Your task to perform on an android device: Search for "logitech g910" on ebay, select the first entry, and add it to the cart. Image 0: 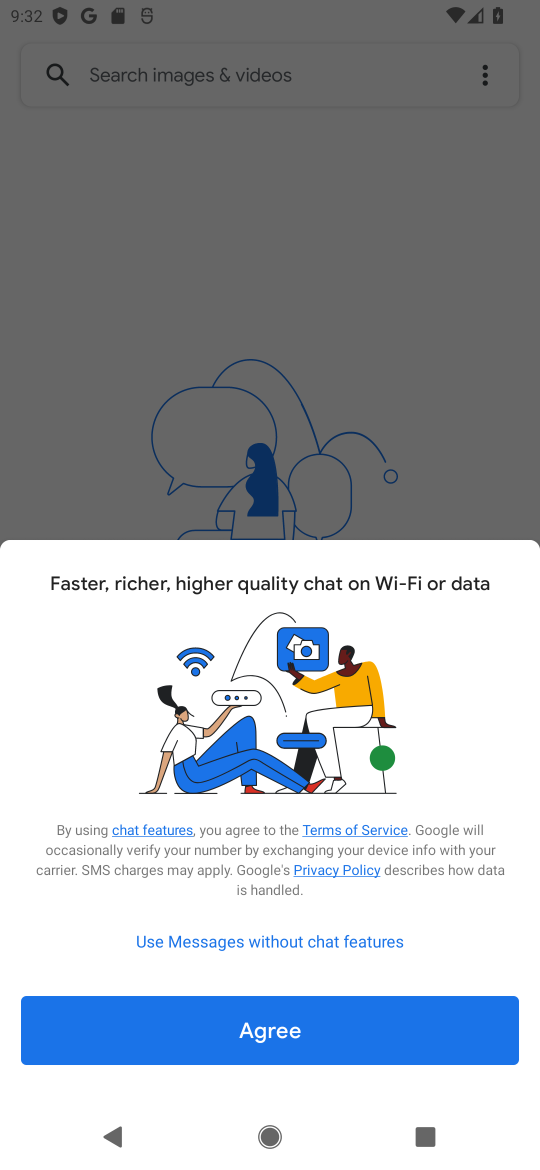
Step 0: press home button
Your task to perform on an android device: Search for "logitech g910" on ebay, select the first entry, and add it to the cart. Image 1: 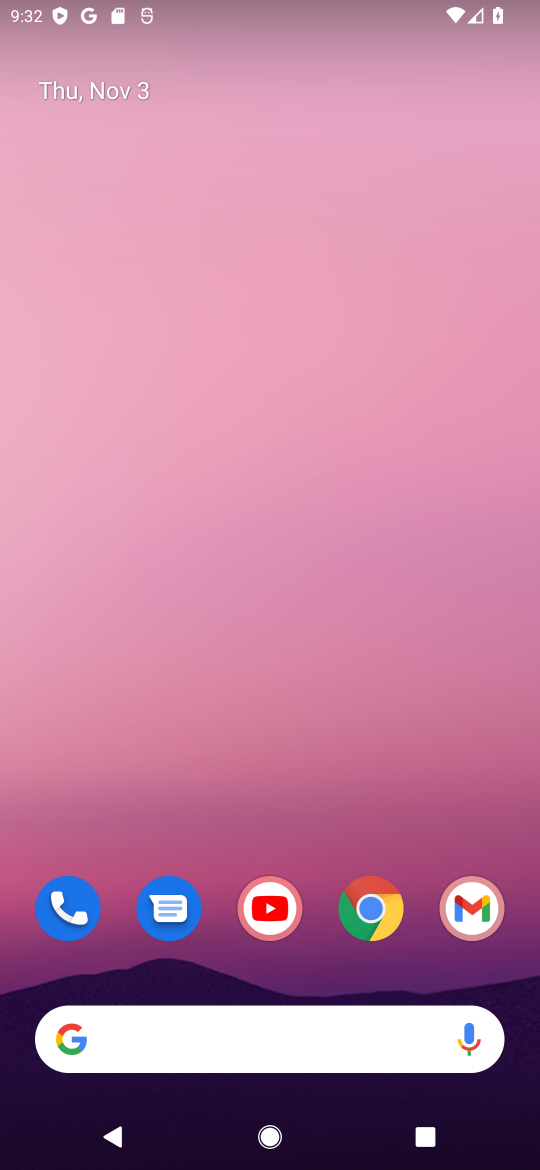
Step 1: click (385, 916)
Your task to perform on an android device: Search for "logitech g910" on ebay, select the first entry, and add it to the cart. Image 2: 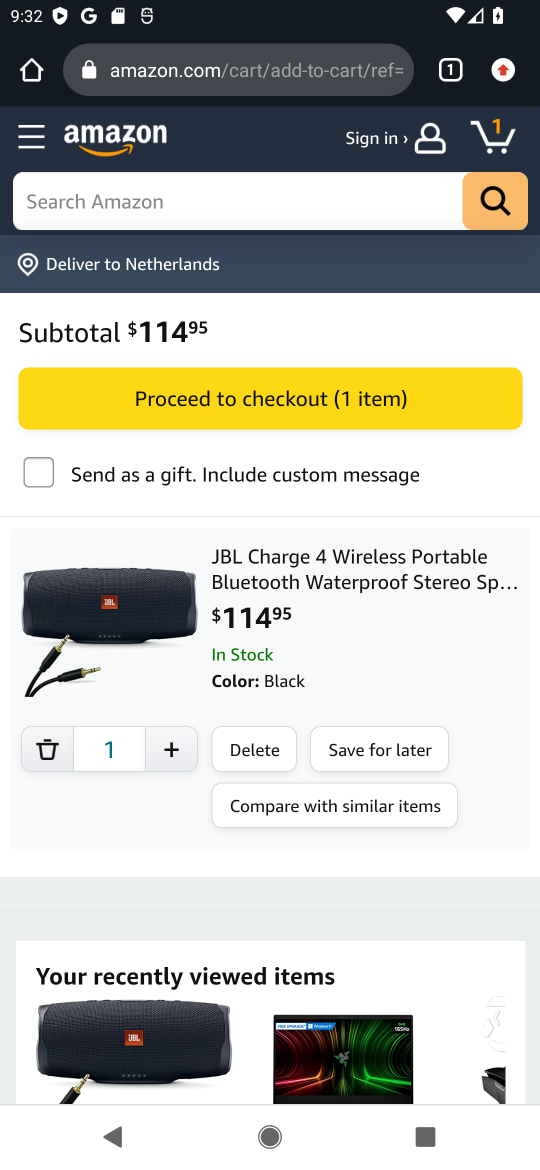
Step 2: click (231, 66)
Your task to perform on an android device: Search for "logitech g910" on ebay, select the first entry, and add it to the cart. Image 3: 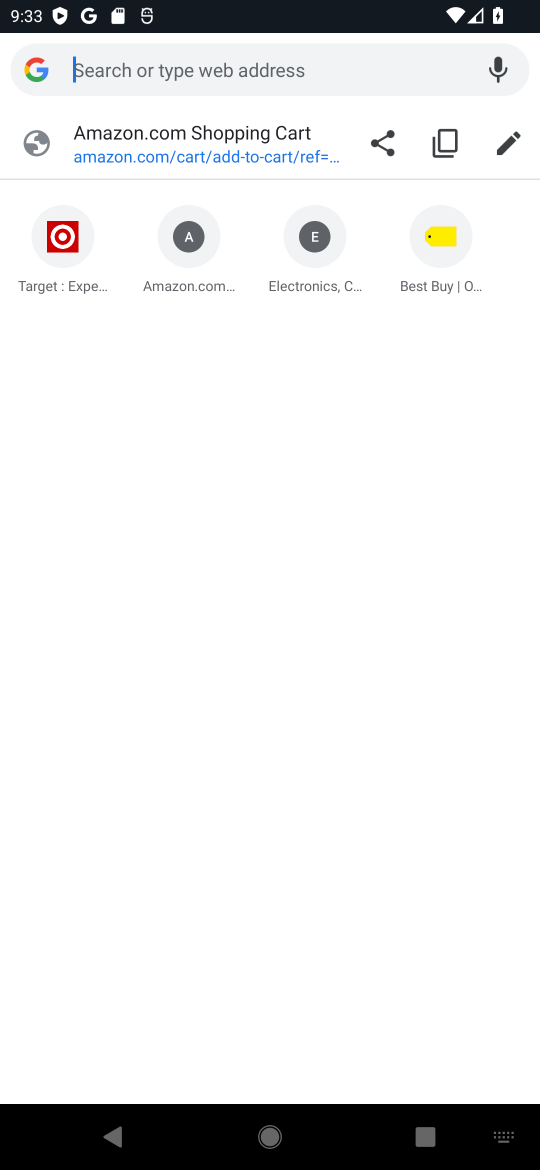
Step 3: type "ebay"
Your task to perform on an android device: Search for "logitech g910" on ebay, select the first entry, and add it to the cart. Image 4: 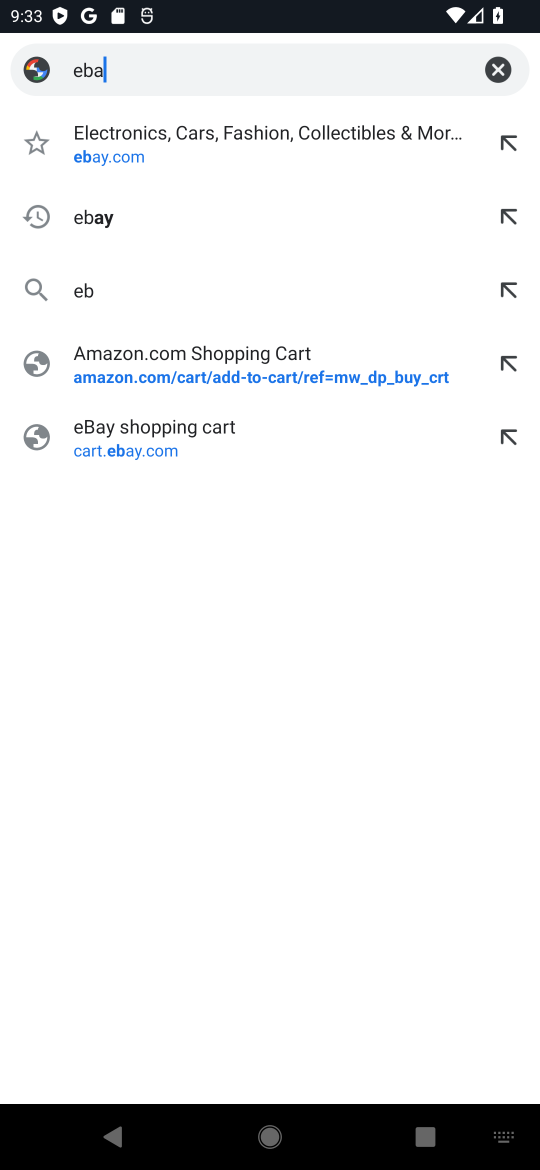
Step 4: press enter
Your task to perform on an android device: Search for "logitech g910" on ebay, select the first entry, and add it to the cart. Image 5: 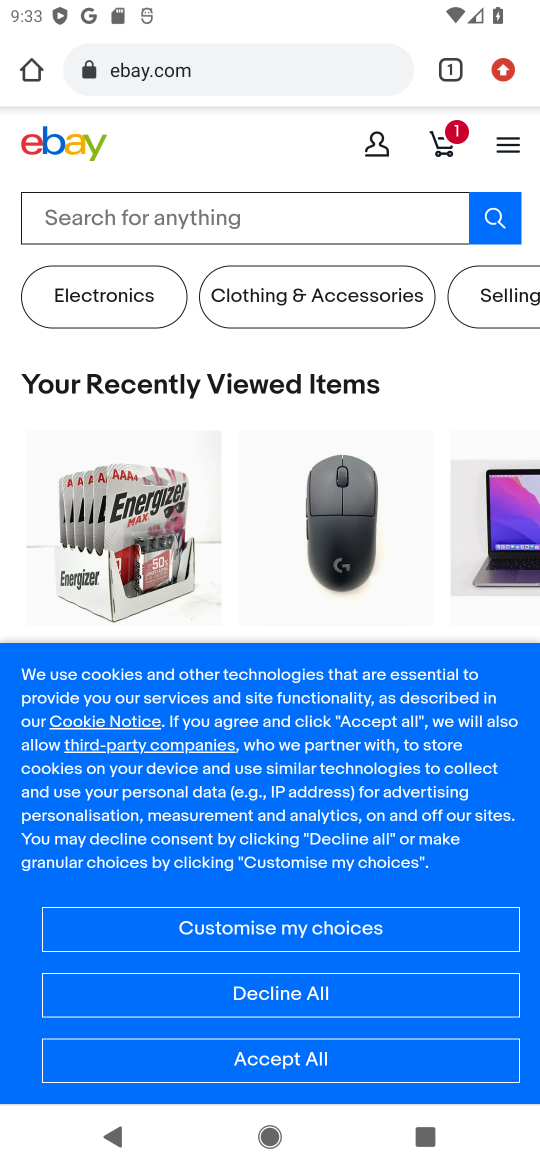
Step 5: click (192, 218)
Your task to perform on an android device: Search for "logitech g910" on ebay, select the first entry, and add it to the cart. Image 6: 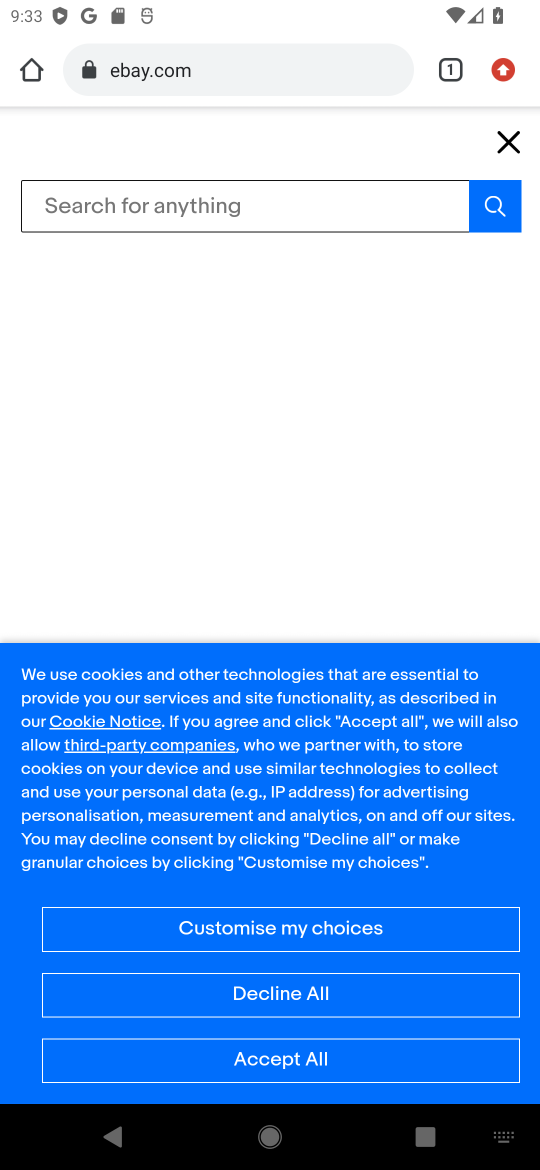
Step 6: press enter
Your task to perform on an android device: Search for "logitech g910" on ebay, select the first entry, and add it to the cart. Image 7: 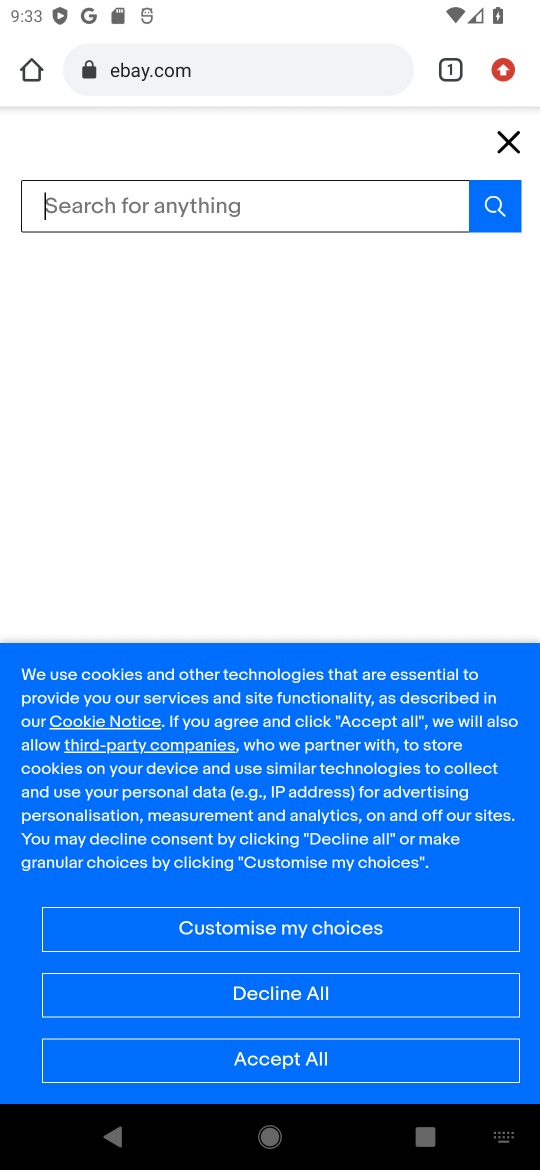
Step 7: type "logitech g910"
Your task to perform on an android device: Search for "logitech g910" on ebay, select the first entry, and add it to the cart. Image 8: 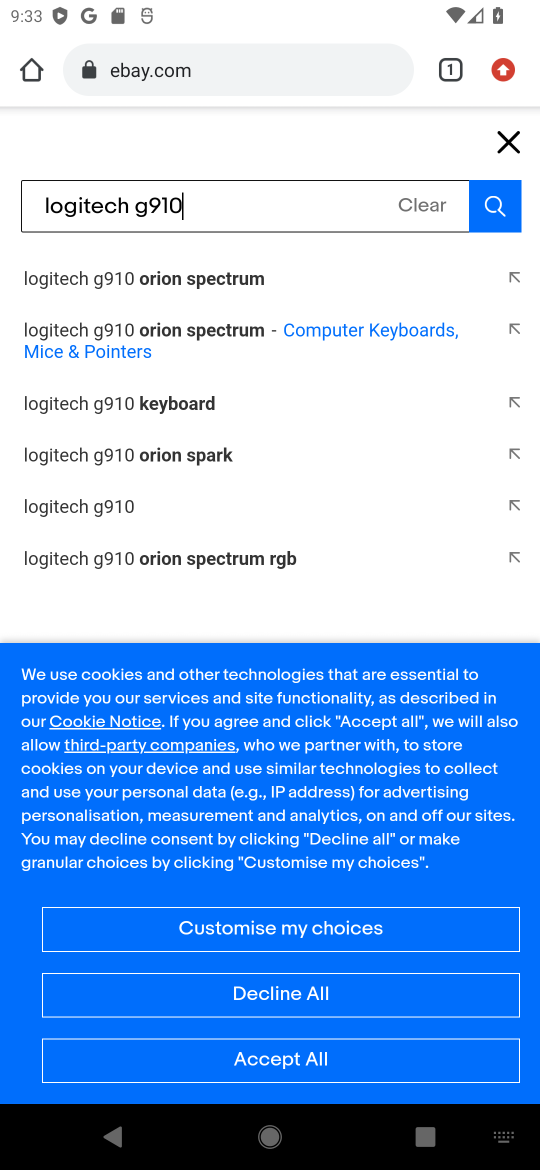
Step 8: click (118, 507)
Your task to perform on an android device: Search for "logitech g910" on ebay, select the first entry, and add it to the cart. Image 9: 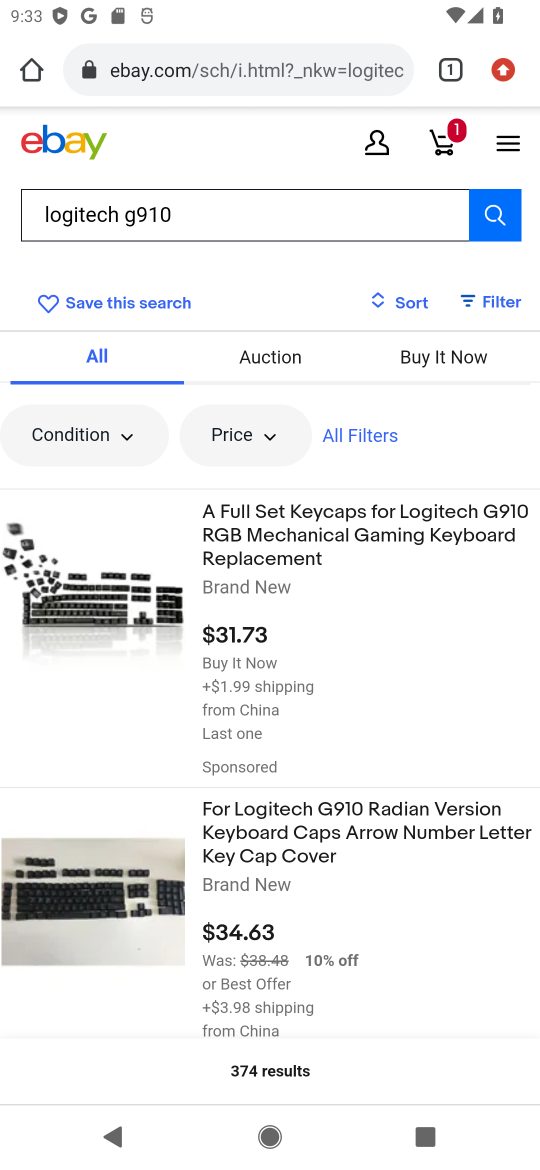
Step 9: click (364, 827)
Your task to perform on an android device: Search for "logitech g910" on ebay, select the first entry, and add it to the cart. Image 10: 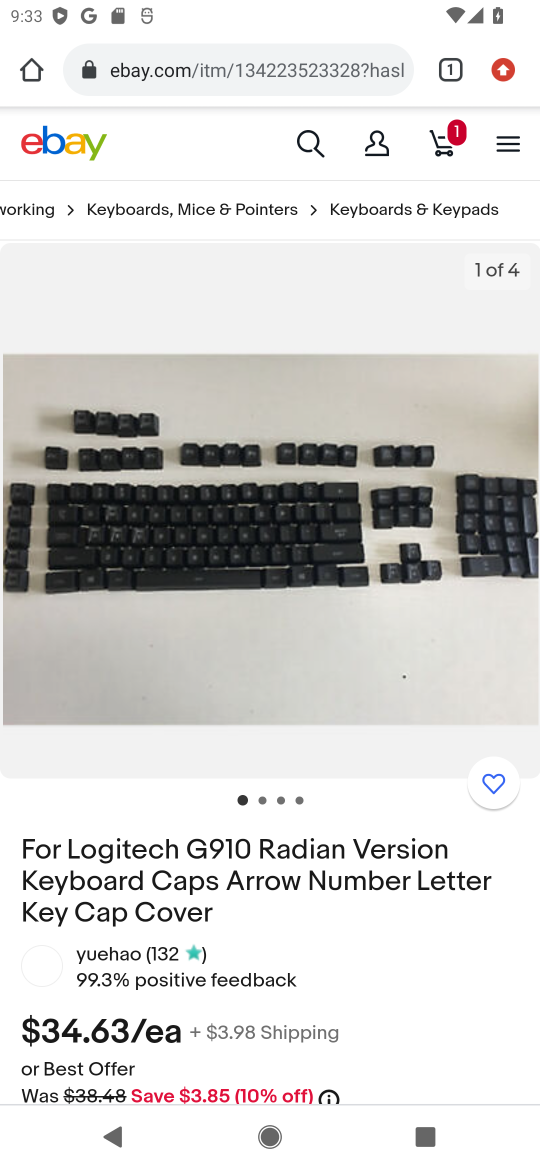
Step 10: press back button
Your task to perform on an android device: Search for "logitech g910" on ebay, select the first entry, and add it to the cart. Image 11: 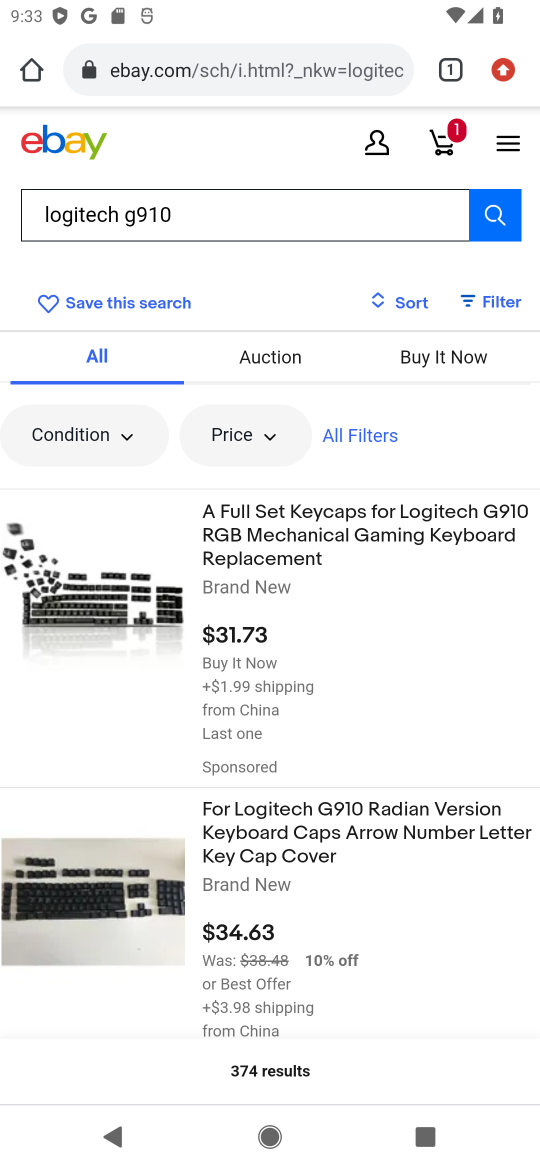
Step 11: drag from (382, 853) to (419, 291)
Your task to perform on an android device: Search for "logitech g910" on ebay, select the first entry, and add it to the cart. Image 12: 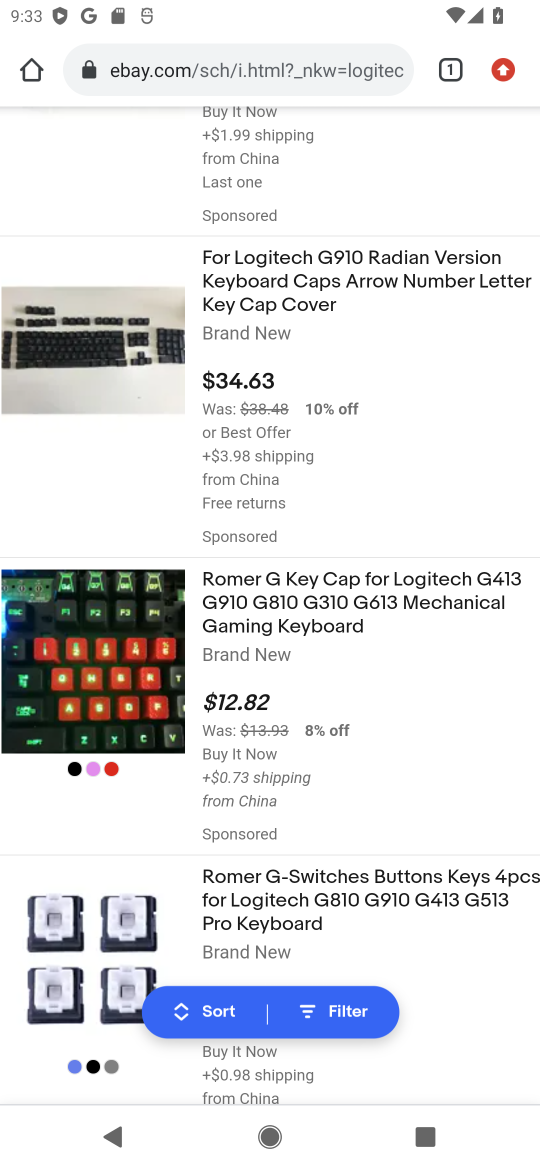
Step 12: drag from (412, 752) to (432, 391)
Your task to perform on an android device: Search for "logitech g910" on ebay, select the first entry, and add it to the cart. Image 13: 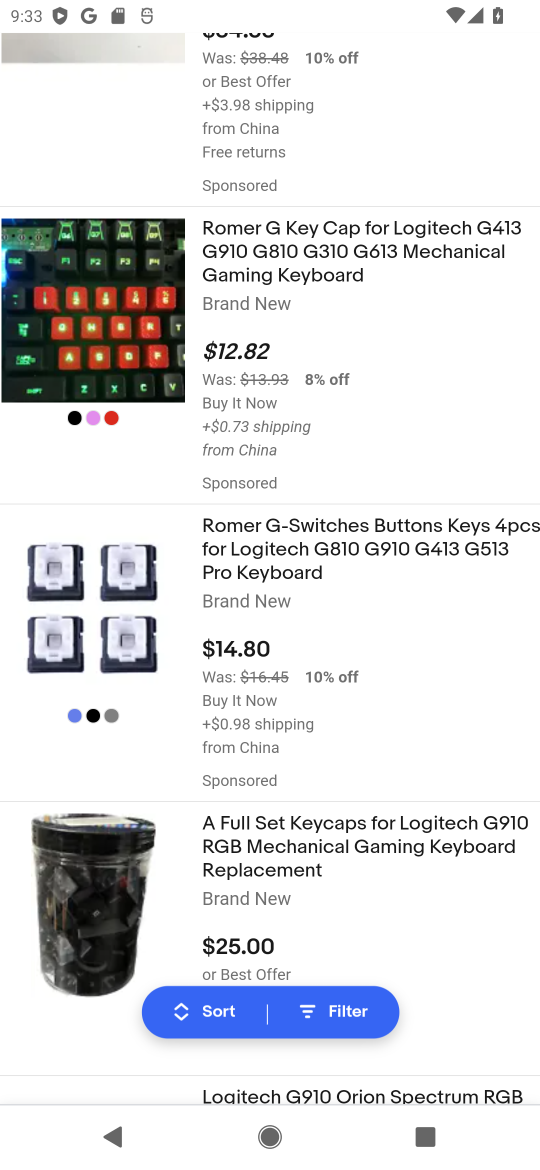
Step 13: drag from (421, 773) to (392, 389)
Your task to perform on an android device: Search for "logitech g910" on ebay, select the first entry, and add it to the cart. Image 14: 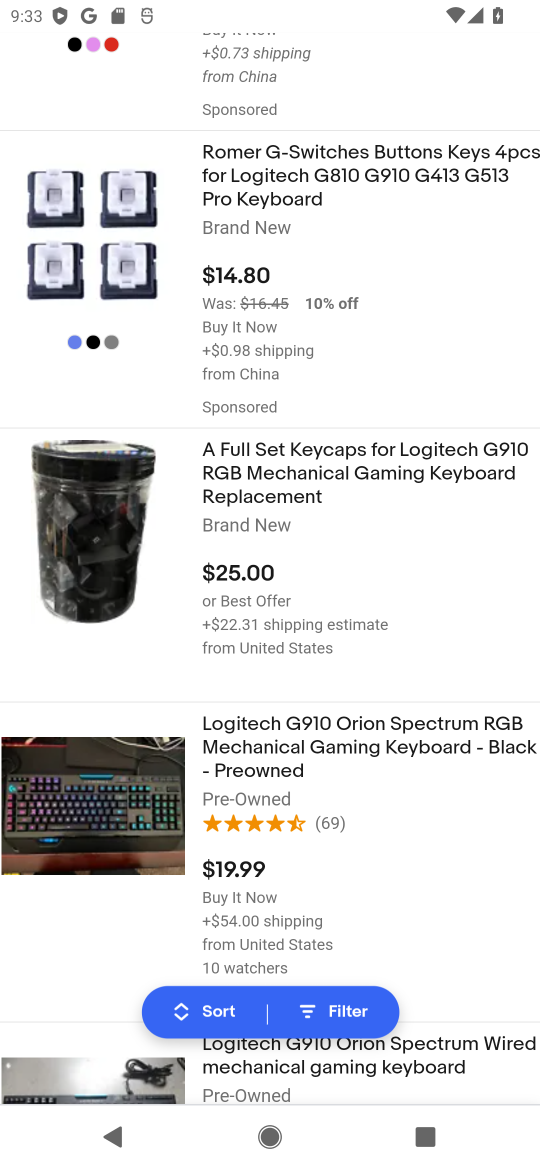
Step 14: click (94, 792)
Your task to perform on an android device: Search for "logitech g910" on ebay, select the first entry, and add it to the cart. Image 15: 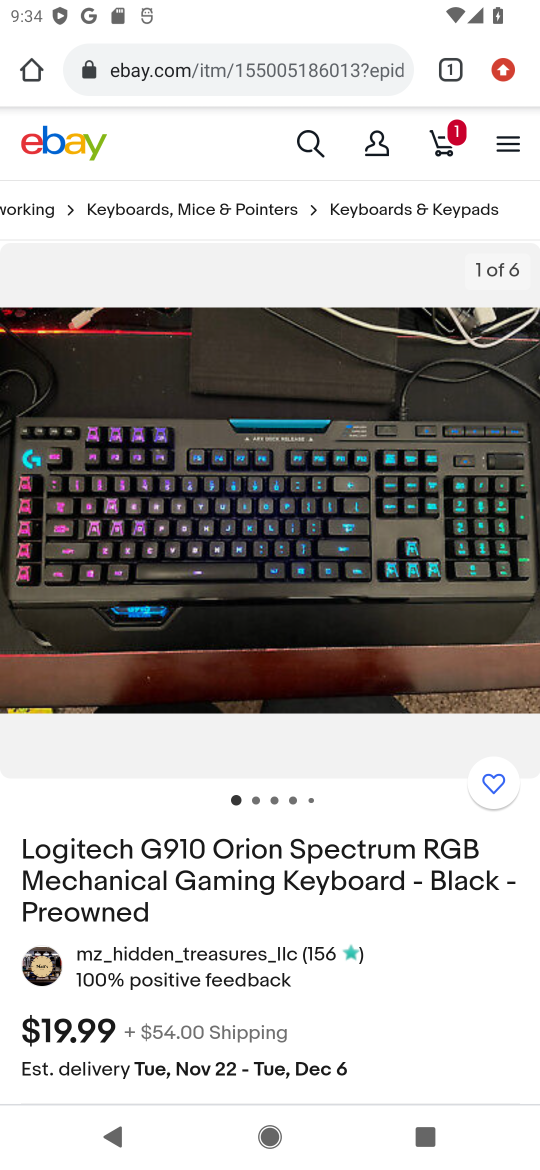
Step 15: drag from (382, 954) to (394, 469)
Your task to perform on an android device: Search for "logitech g910" on ebay, select the first entry, and add it to the cart. Image 16: 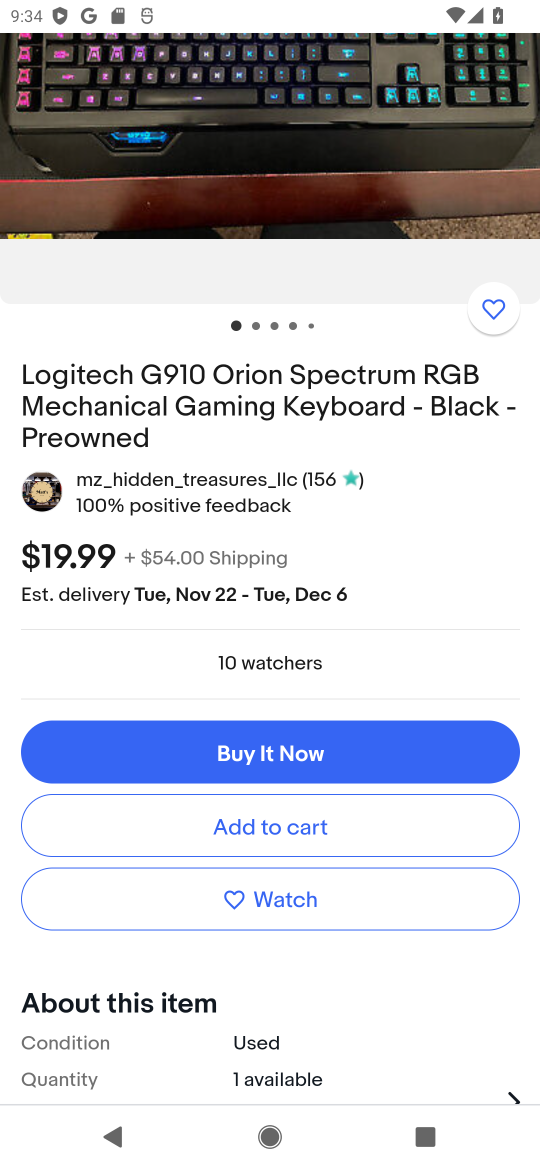
Step 16: click (286, 815)
Your task to perform on an android device: Search for "logitech g910" on ebay, select the first entry, and add it to the cart. Image 17: 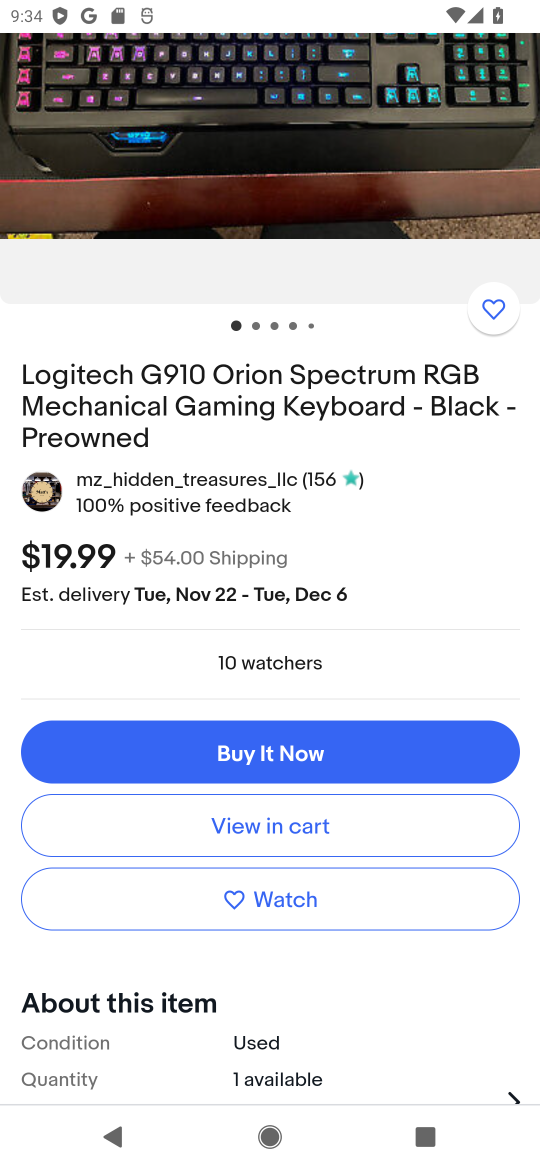
Step 17: task complete